Your task to perform on an android device: turn off location Image 0: 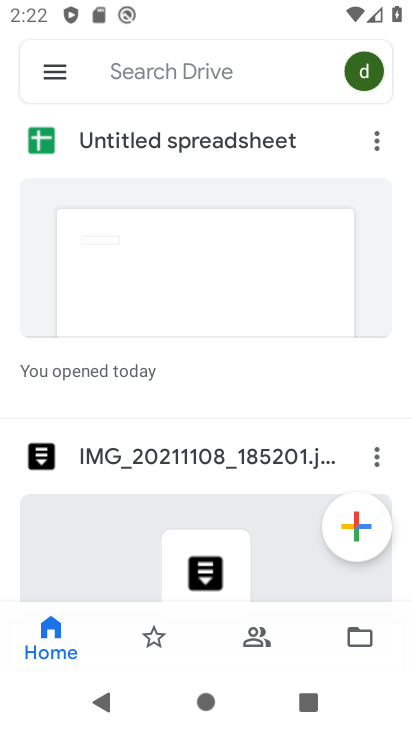
Step 0: press home button
Your task to perform on an android device: turn off location Image 1: 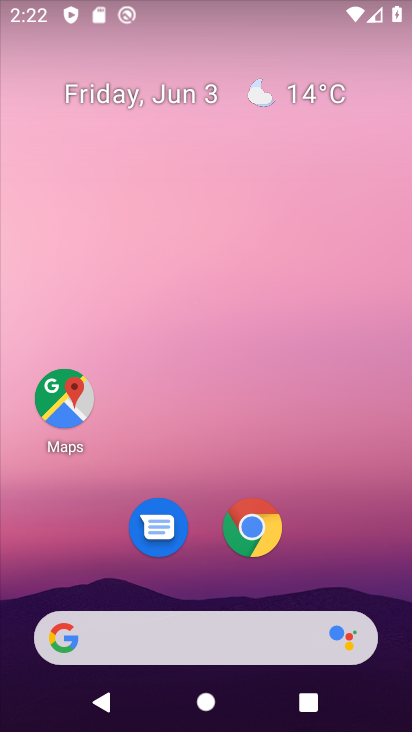
Step 1: click (206, 608)
Your task to perform on an android device: turn off location Image 2: 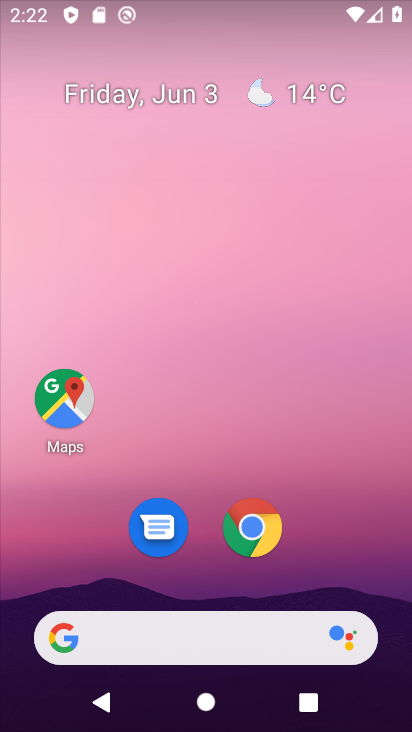
Step 2: drag from (206, 608) to (243, 142)
Your task to perform on an android device: turn off location Image 3: 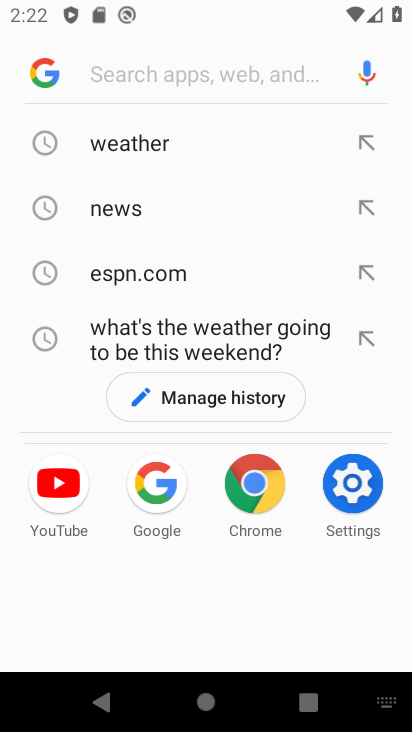
Step 3: click (352, 481)
Your task to perform on an android device: turn off location Image 4: 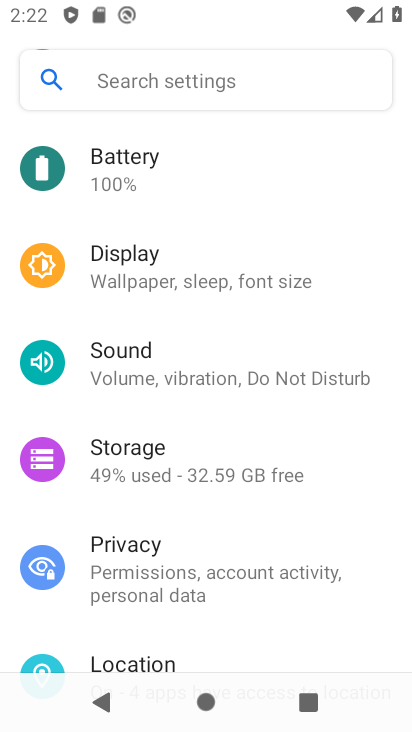
Step 4: click (156, 662)
Your task to perform on an android device: turn off location Image 5: 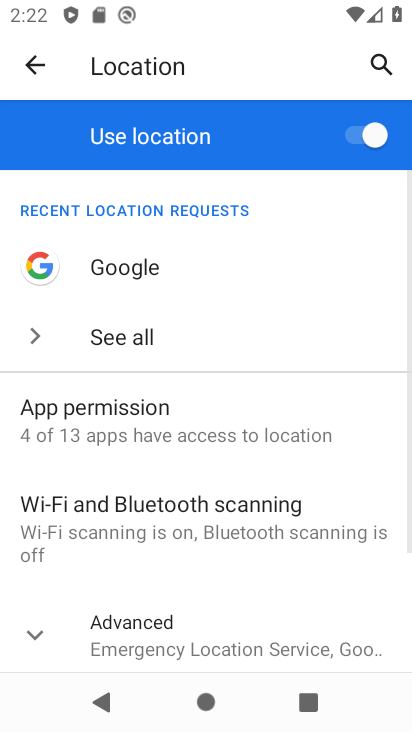
Step 5: click (355, 130)
Your task to perform on an android device: turn off location Image 6: 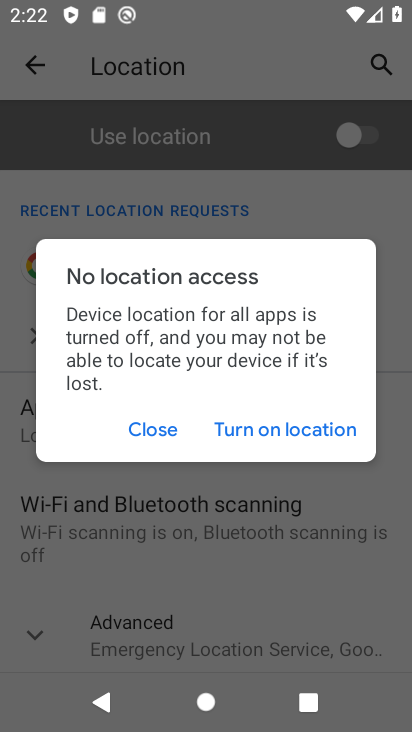
Step 6: click (160, 430)
Your task to perform on an android device: turn off location Image 7: 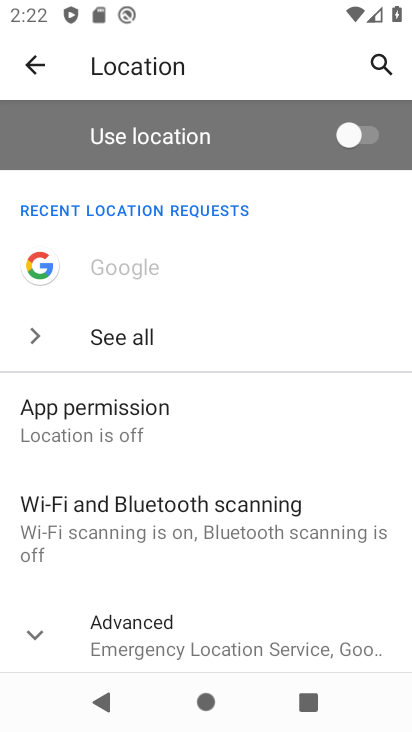
Step 7: task complete